Your task to perform on an android device: open app "Pinterest" (install if not already installed), go to login, and select forgot password Image 0: 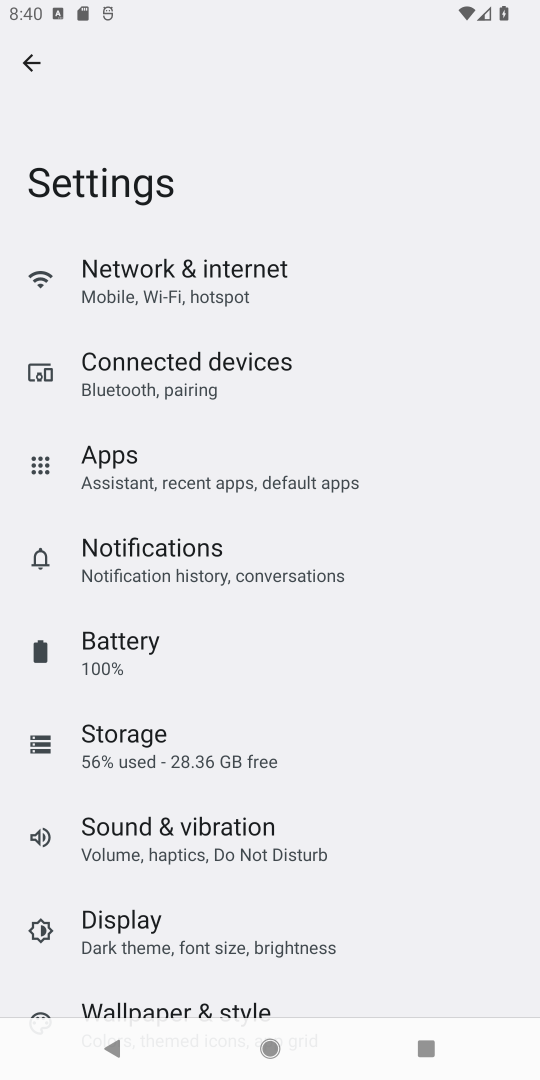
Step 0: press home button
Your task to perform on an android device: open app "Pinterest" (install if not already installed), go to login, and select forgot password Image 1: 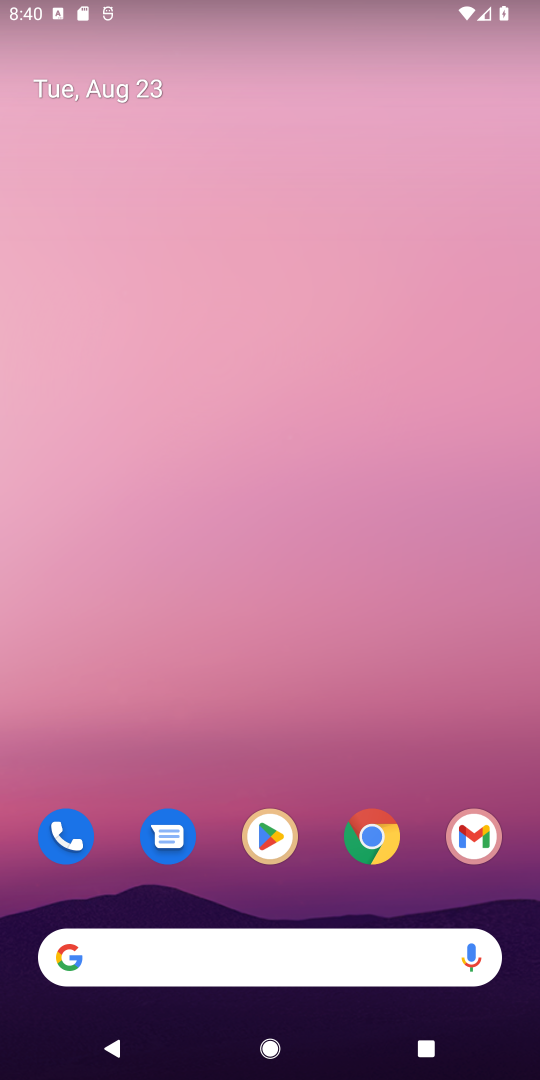
Step 1: click (254, 838)
Your task to perform on an android device: open app "Pinterest" (install if not already installed), go to login, and select forgot password Image 2: 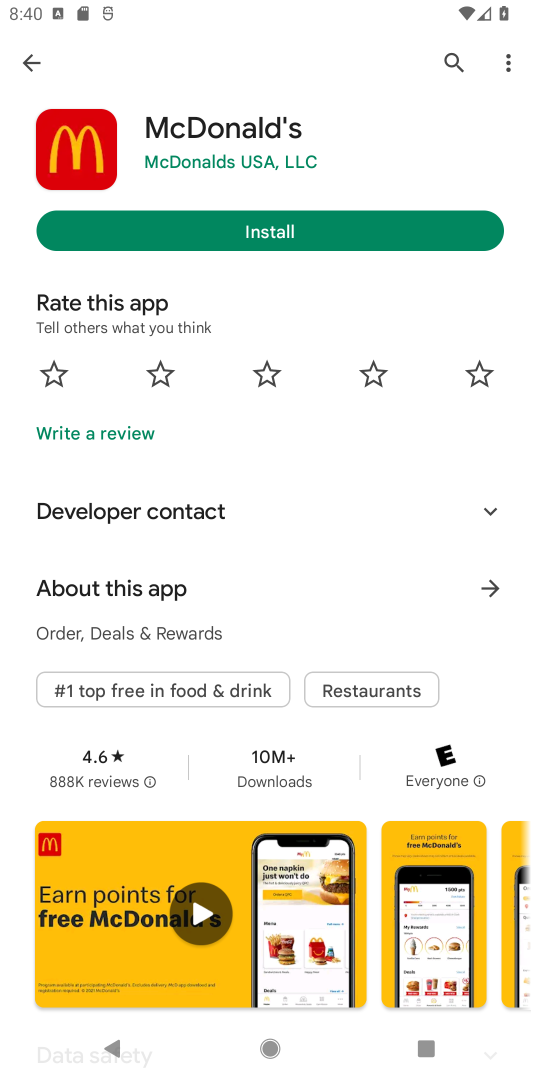
Step 2: click (445, 61)
Your task to perform on an android device: open app "Pinterest" (install if not already installed), go to login, and select forgot password Image 3: 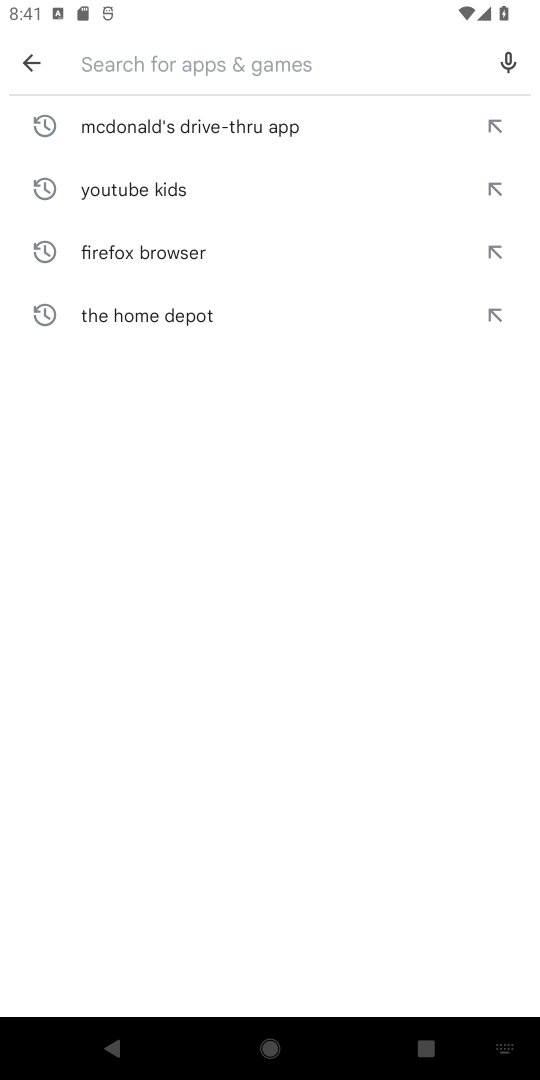
Step 3: type "Pinterest"
Your task to perform on an android device: open app "Pinterest" (install if not already installed), go to login, and select forgot password Image 4: 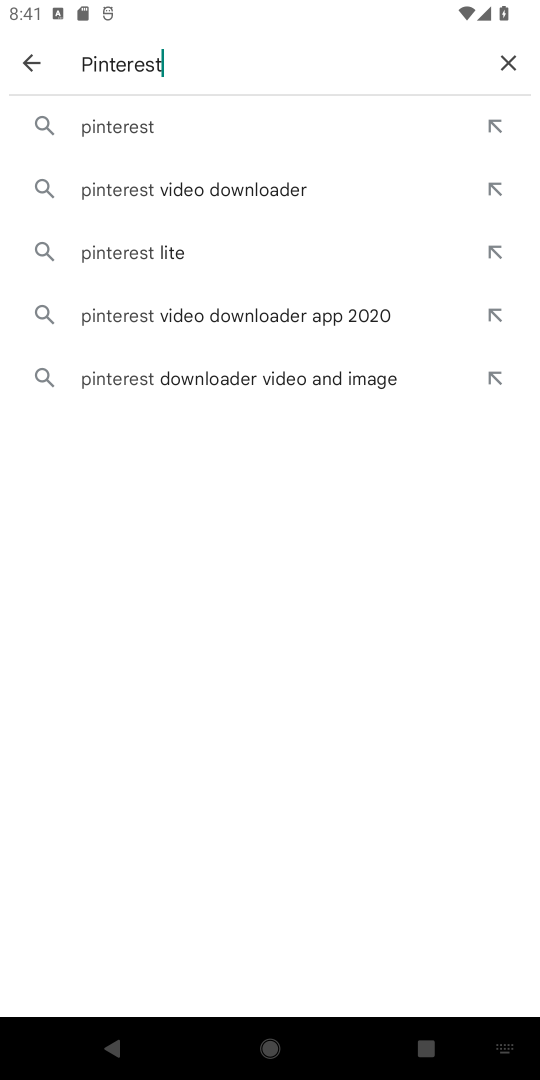
Step 4: click (125, 125)
Your task to perform on an android device: open app "Pinterest" (install if not already installed), go to login, and select forgot password Image 5: 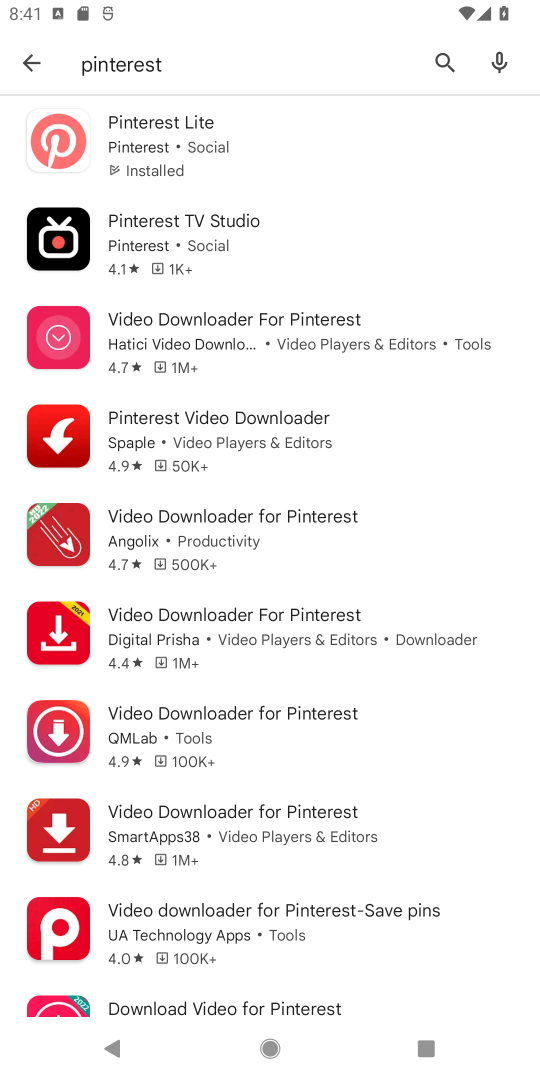
Step 5: task complete